Your task to perform on an android device: toggle notifications settings in the gmail app Image 0: 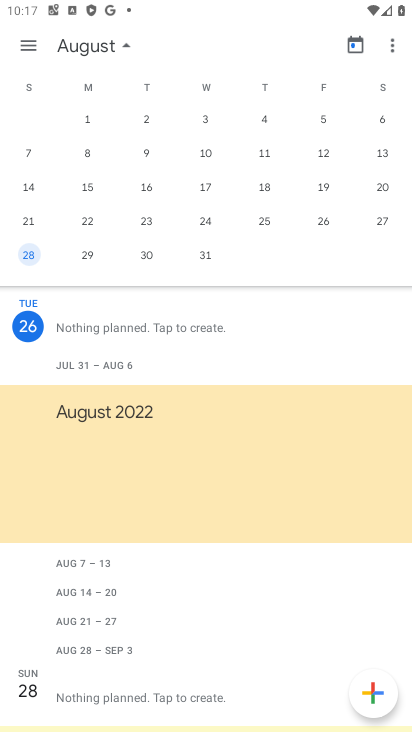
Step 0: press home button
Your task to perform on an android device: toggle notifications settings in the gmail app Image 1: 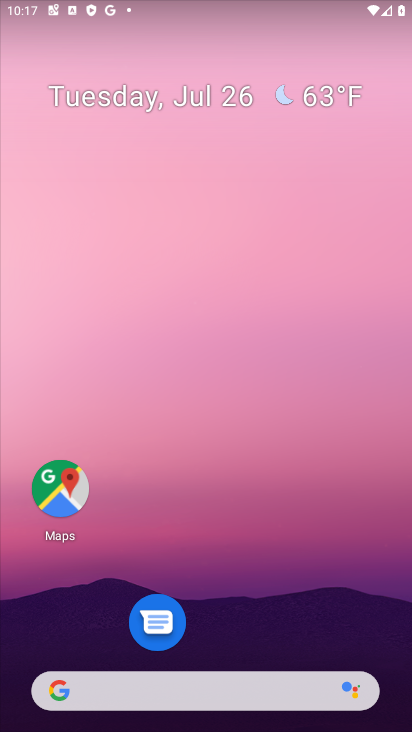
Step 1: drag from (331, 569) to (259, 81)
Your task to perform on an android device: toggle notifications settings in the gmail app Image 2: 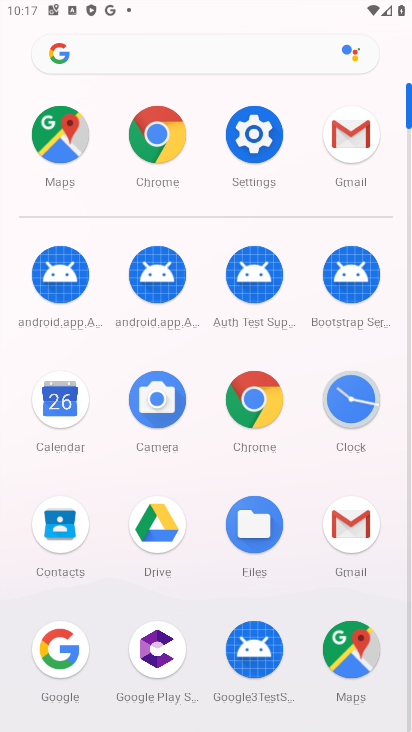
Step 2: click (344, 150)
Your task to perform on an android device: toggle notifications settings in the gmail app Image 3: 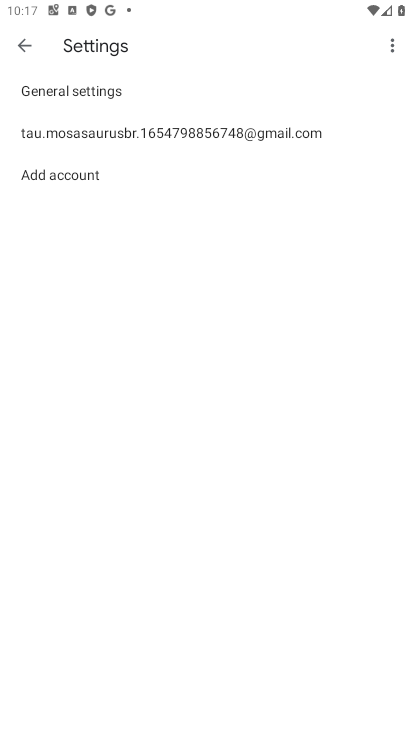
Step 3: click (8, 37)
Your task to perform on an android device: toggle notifications settings in the gmail app Image 4: 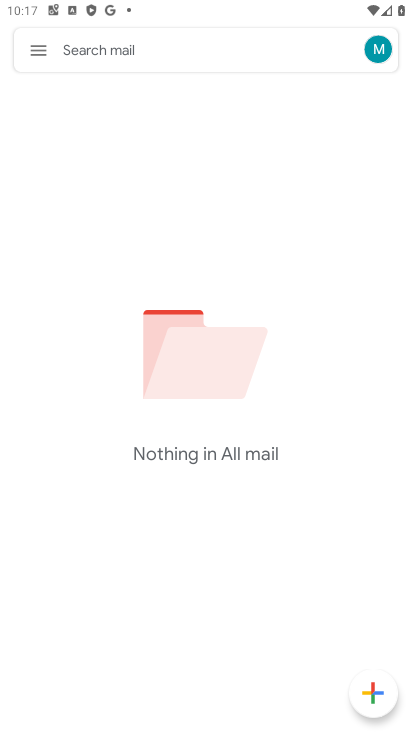
Step 4: click (34, 55)
Your task to perform on an android device: toggle notifications settings in the gmail app Image 5: 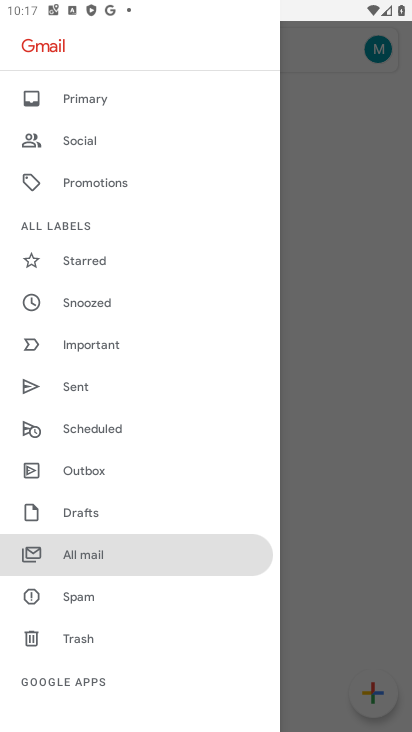
Step 5: drag from (102, 619) to (23, 230)
Your task to perform on an android device: toggle notifications settings in the gmail app Image 6: 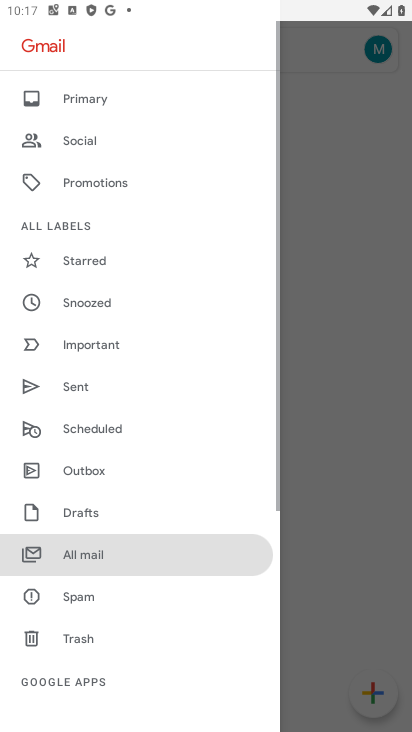
Step 6: drag from (105, 536) to (175, 171)
Your task to perform on an android device: toggle notifications settings in the gmail app Image 7: 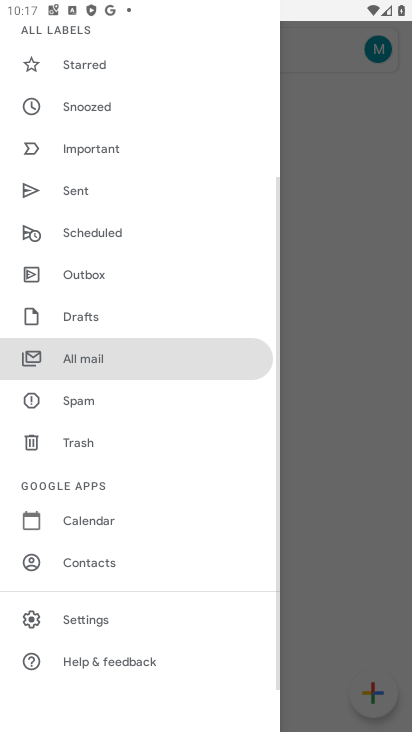
Step 7: click (88, 622)
Your task to perform on an android device: toggle notifications settings in the gmail app Image 8: 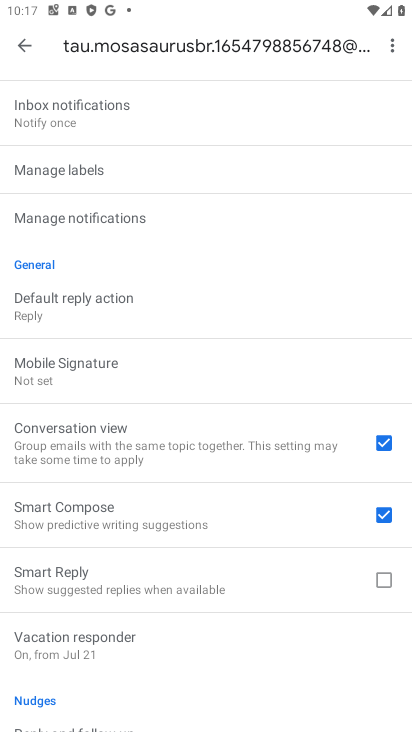
Step 8: drag from (191, 221) to (175, 722)
Your task to perform on an android device: toggle notifications settings in the gmail app Image 9: 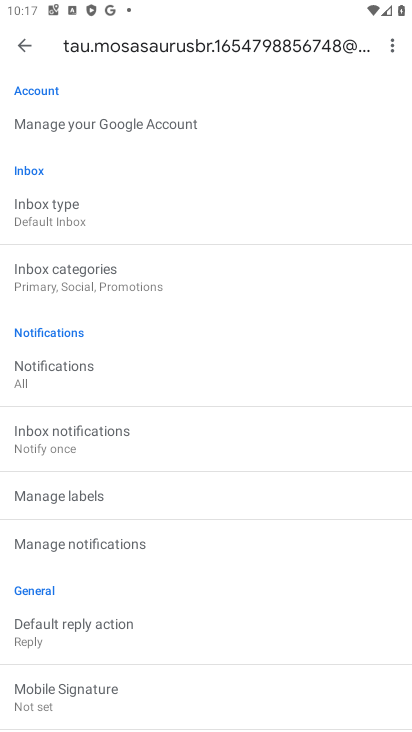
Step 9: click (86, 369)
Your task to perform on an android device: toggle notifications settings in the gmail app Image 10: 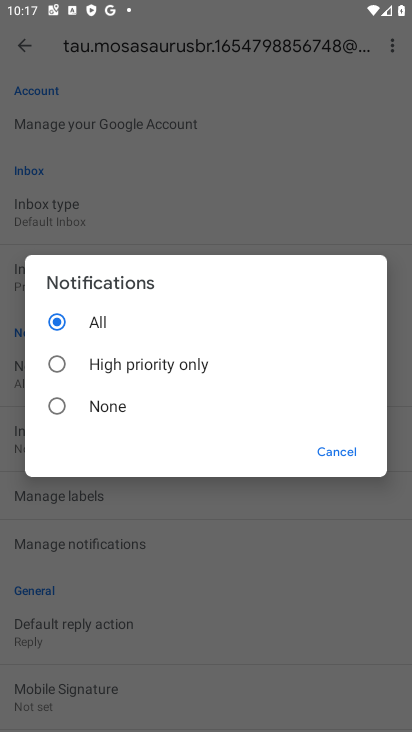
Step 10: click (128, 367)
Your task to perform on an android device: toggle notifications settings in the gmail app Image 11: 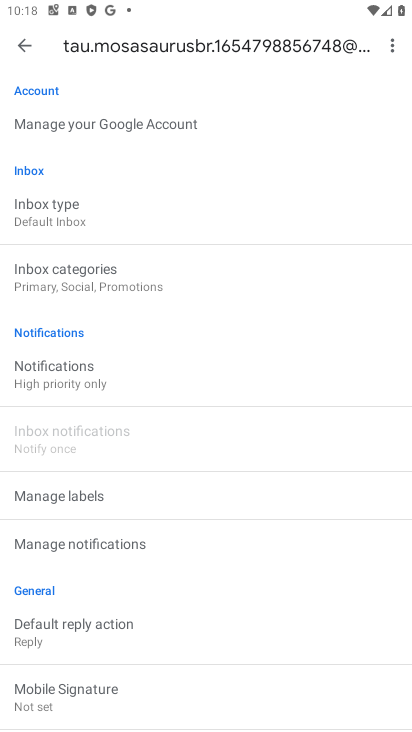
Step 11: task complete